Your task to perform on an android device: change keyboard looks Image 0: 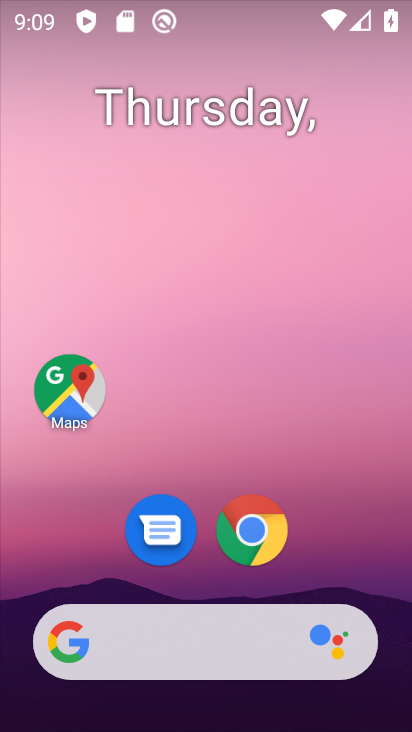
Step 0: drag from (346, 538) to (239, 9)
Your task to perform on an android device: change keyboard looks Image 1: 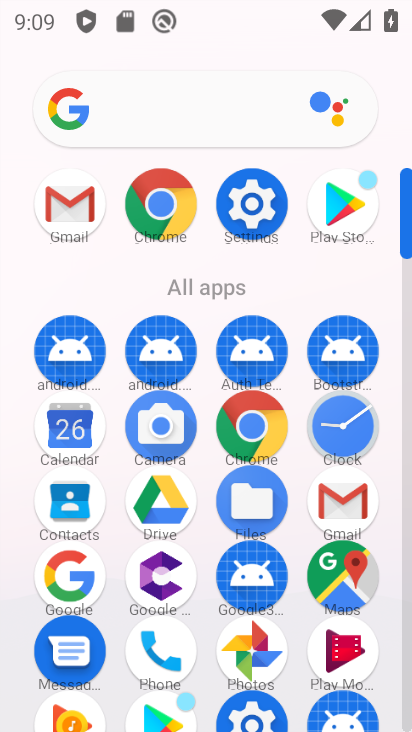
Step 1: drag from (7, 585) to (3, 224)
Your task to perform on an android device: change keyboard looks Image 2: 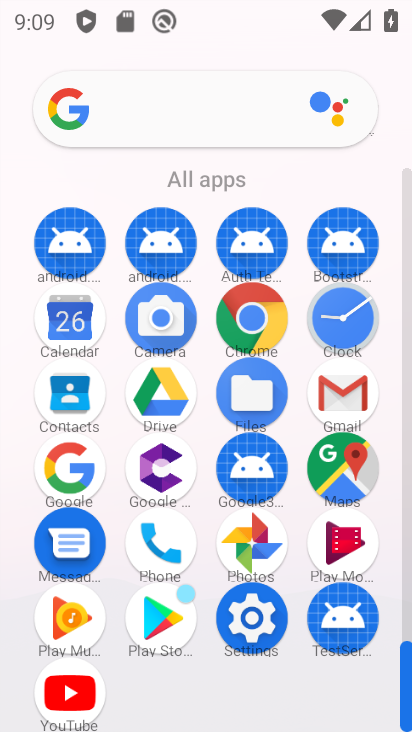
Step 2: click (249, 617)
Your task to perform on an android device: change keyboard looks Image 3: 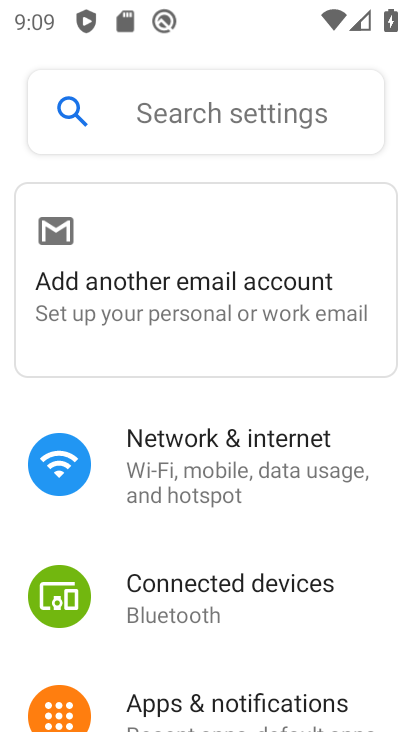
Step 3: drag from (278, 550) to (306, 193)
Your task to perform on an android device: change keyboard looks Image 4: 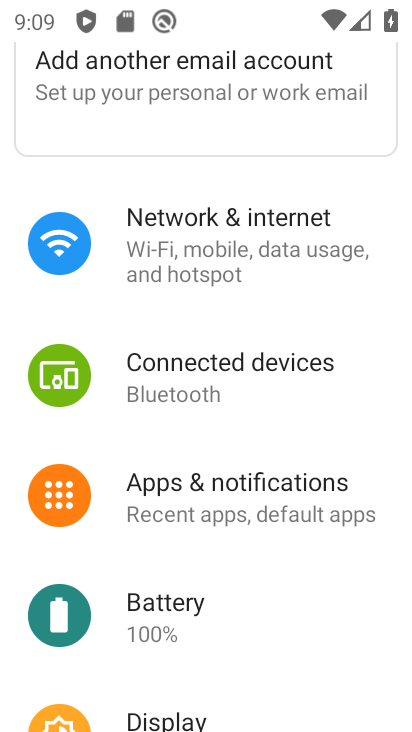
Step 4: drag from (286, 573) to (292, 165)
Your task to perform on an android device: change keyboard looks Image 5: 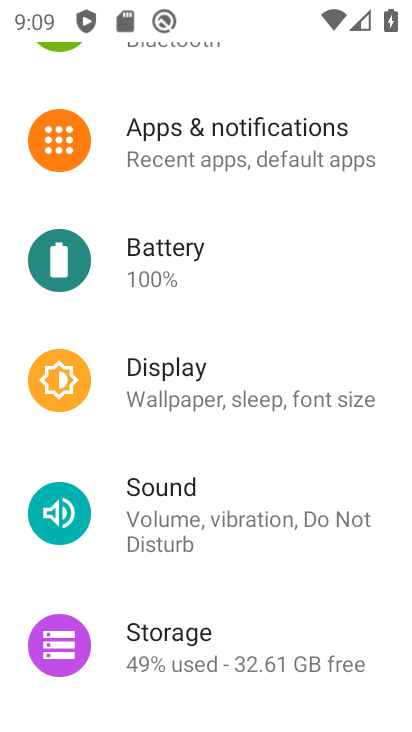
Step 5: drag from (295, 613) to (316, 181)
Your task to perform on an android device: change keyboard looks Image 6: 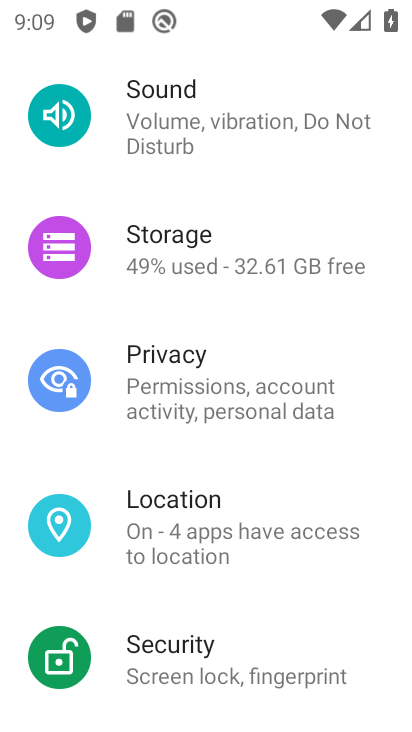
Step 6: drag from (278, 658) to (281, 165)
Your task to perform on an android device: change keyboard looks Image 7: 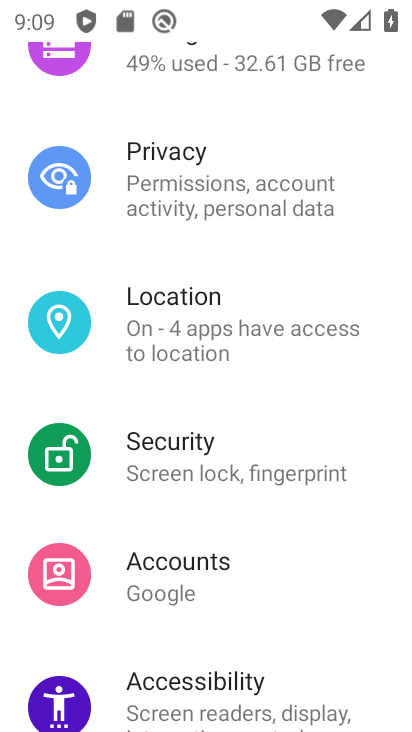
Step 7: drag from (253, 650) to (298, 216)
Your task to perform on an android device: change keyboard looks Image 8: 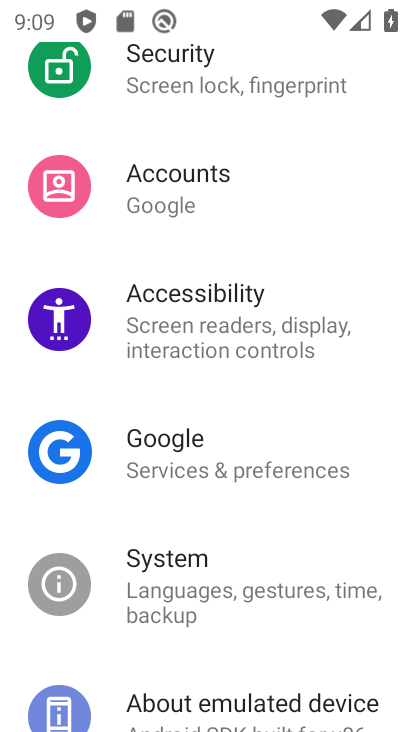
Step 8: drag from (305, 554) to (311, 233)
Your task to perform on an android device: change keyboard looks Image 9: 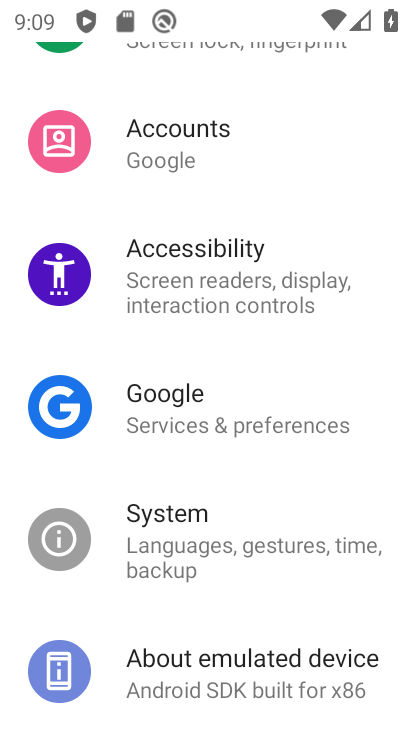
Step 9: click (220, 524)
Your task to perform on an android device: change keyboard looks Image 10: 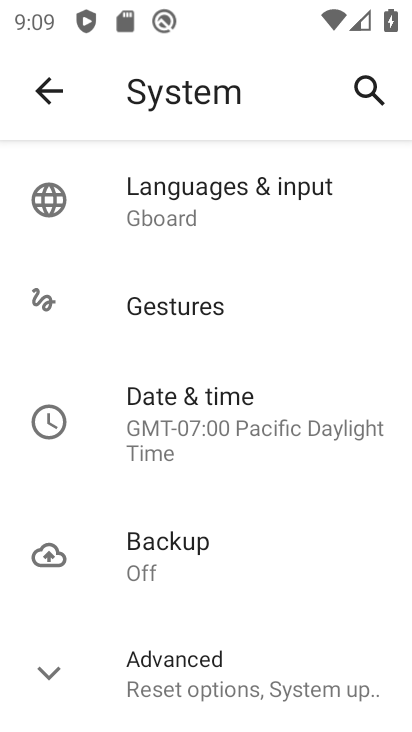
Step 10: click (203, 199)
Your task to perform on an android device: change keyboard looks Image 11: 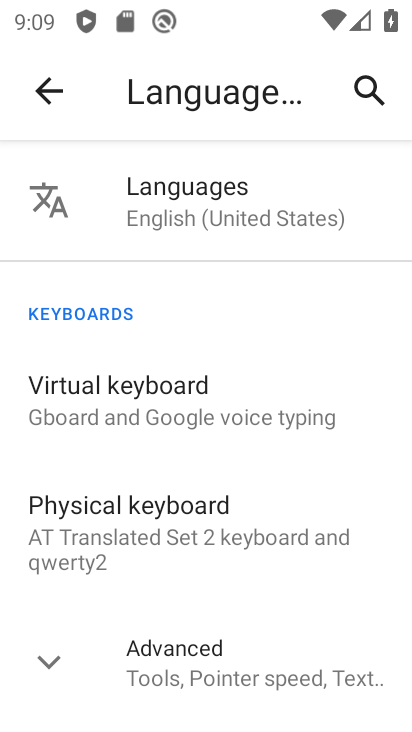
Step 11: click (229, 409)
Your task to perform on an android device: change keyboard looks Image 12: 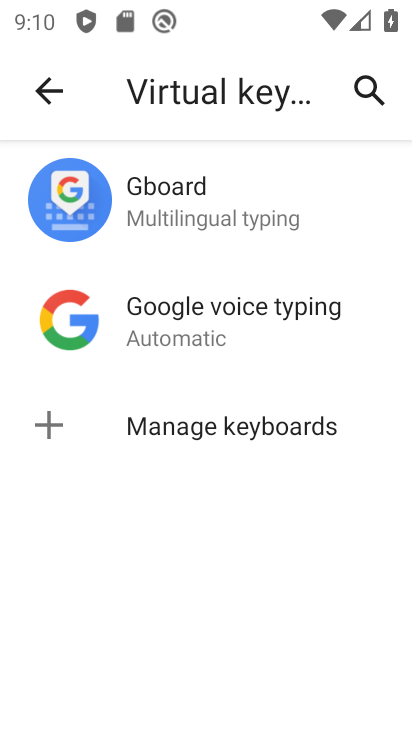
Step 12: click (233, 223)
Your task to perform on an android device: change keyboard looks Image 13: 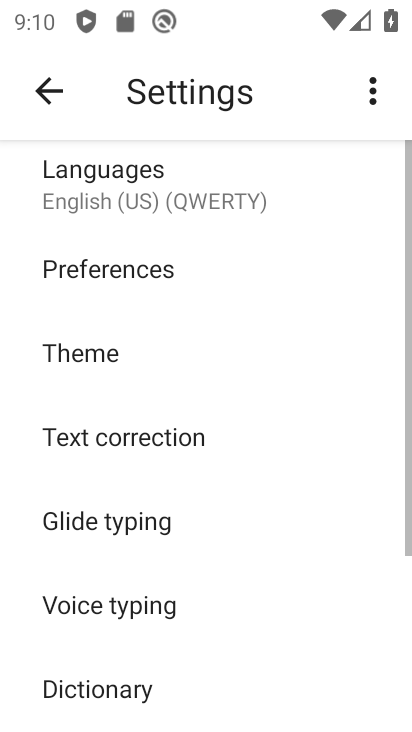
Step 13: click (128, 353)
Your task to perform on an android device: change keyboard looks Image 14: 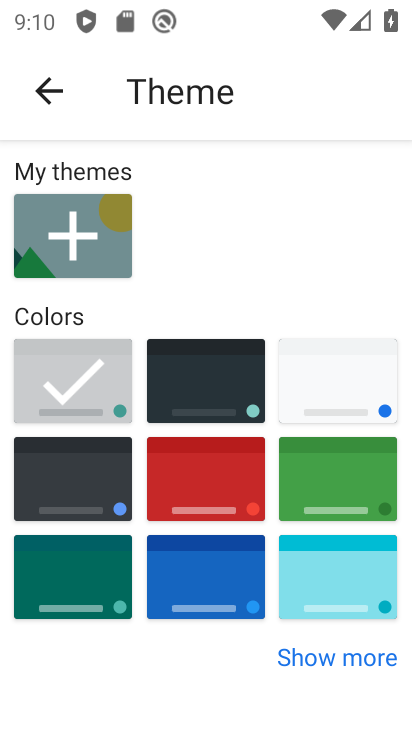
Step 14: click (246, 395)
Your task to perform on an android device: change keyboard looks Image 15: 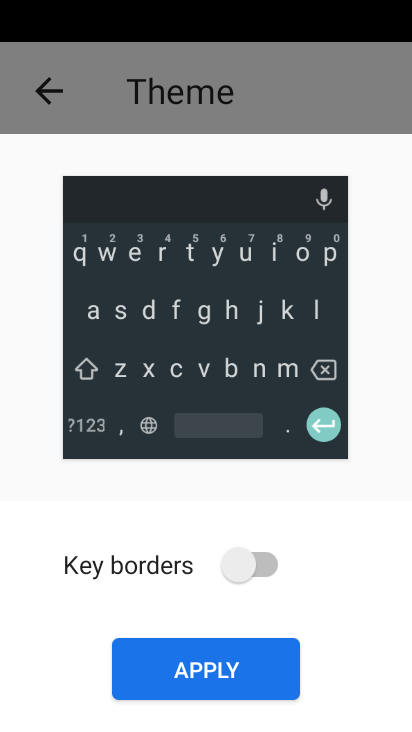
Step 15: click (185, 672)
Your task to perform on an android device: change keyboard looks Image 16: 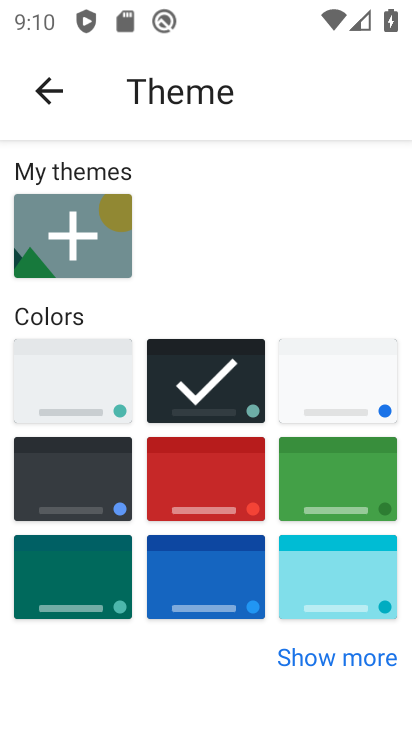
Step 16: task complete